Your task to perform on an android device: turn off translation in the chrome app Image 0: 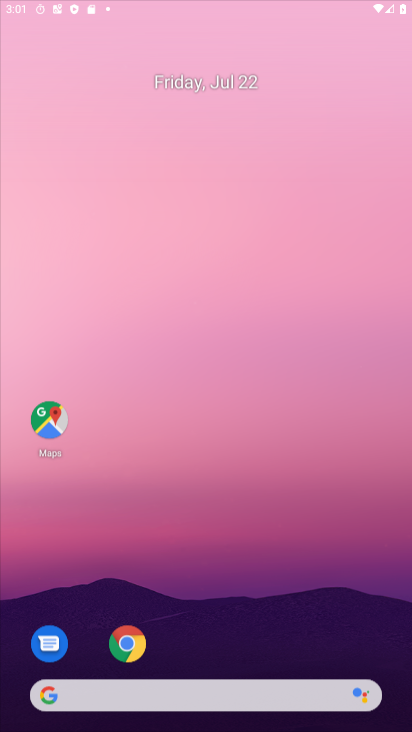
Step 0: press home button
Your task to perform on an android device: turn off translation in the chrome app Image 1: 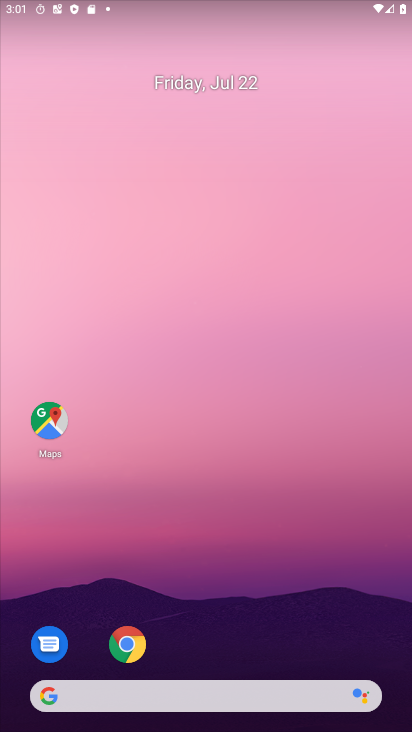
Step 1: drag from (243, 642) to (178, 90)
Your task to perform on an android device: turn off translation in the chrome app Image 2: 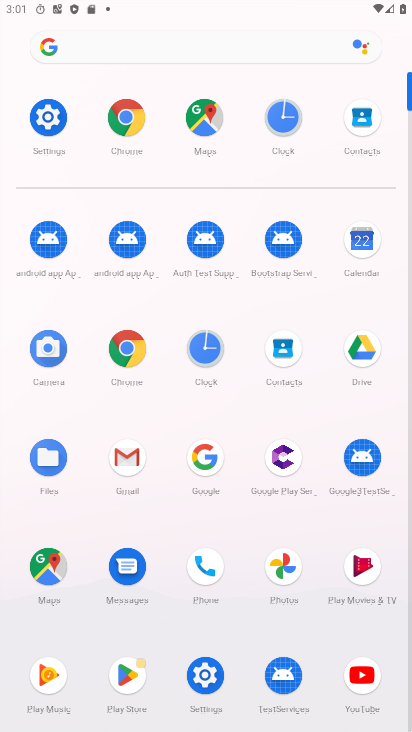
Step 2: click (120, 120)
Your task to perform on an android device: turn off translation in the chrome app Image 3: 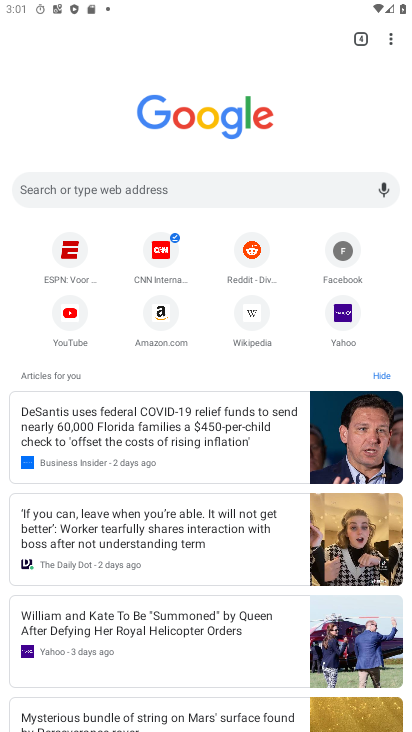
Step 3: drag from (389, 37) to (247, 375)
Your task to perform on an android device: turn off translation in the chrome app Image 4: 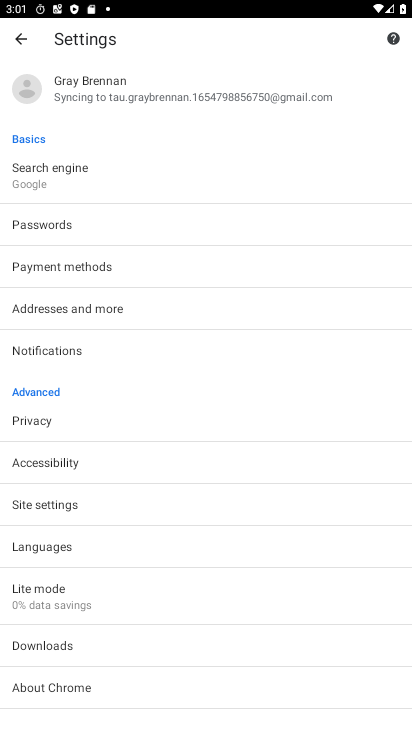
Step 4: click (31, 547)
Your task to perform on an android device: turn off translation in the chrome app Image 5: 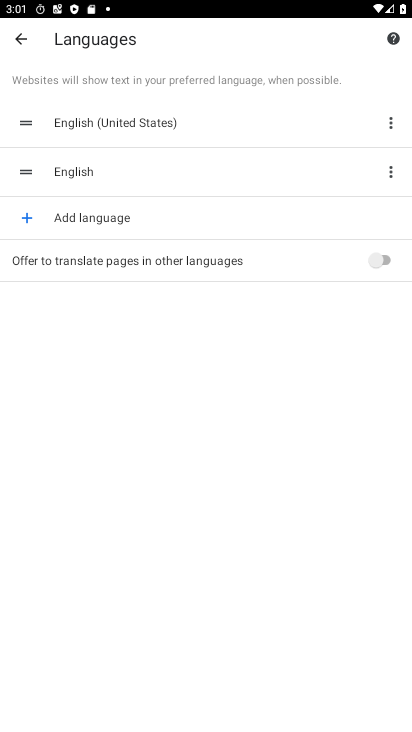
Step 5: task complete